Your task to perform on an android device: change notification settings in the gmail app Image 0: 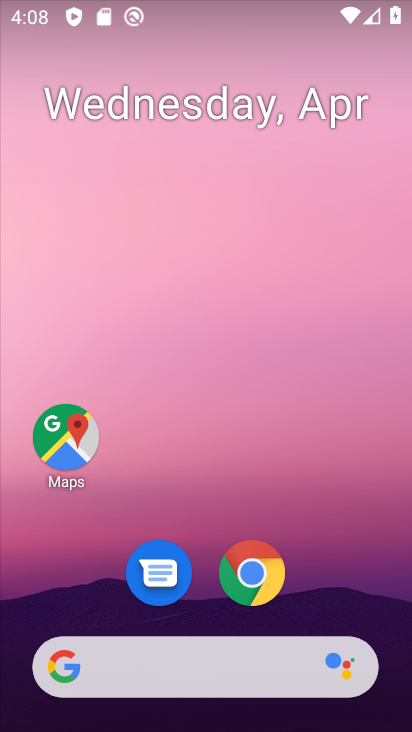
Step 0: drag from (346, 585) to (355, 84)
Your task to perform on an android device: change notification settings in the gmail app Image 1: 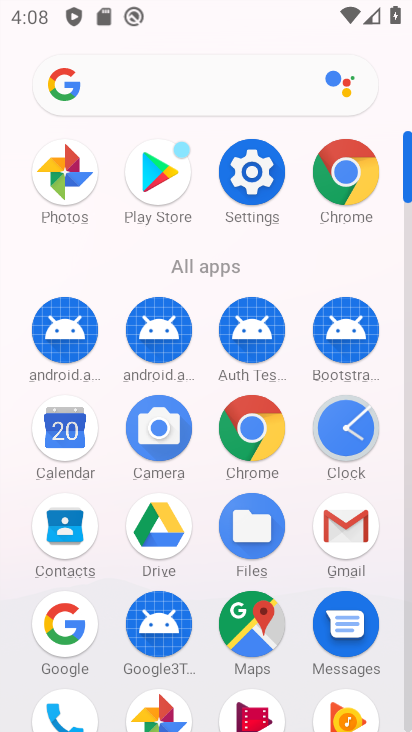
Step 1: click (357, 542)
Your task to perform on an android device: change notification settings in the gmail app Image 2: 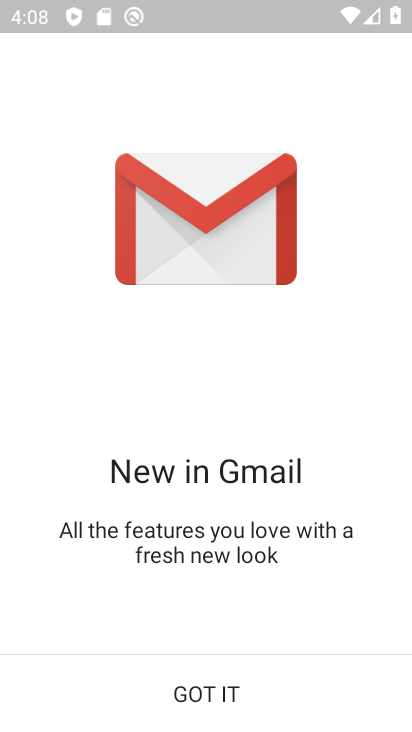
Step 2: click (200, 682)
Your task to perform on an android device: change notification settings in the gmail app Image 3: 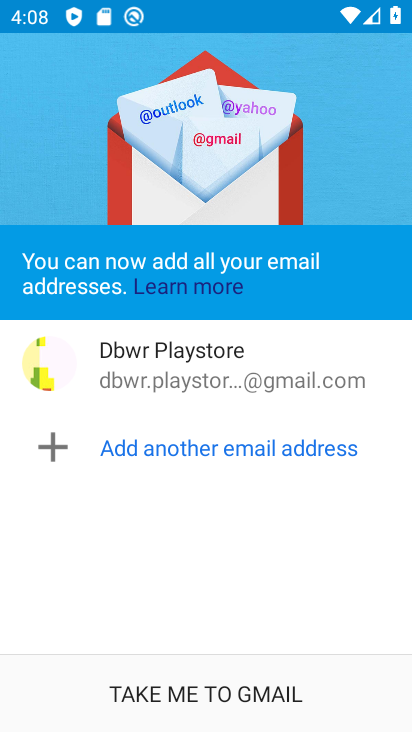
Step 3: click (200, 682)
Your task to perform on an android device: change notification settings in the gmail app Image 4: 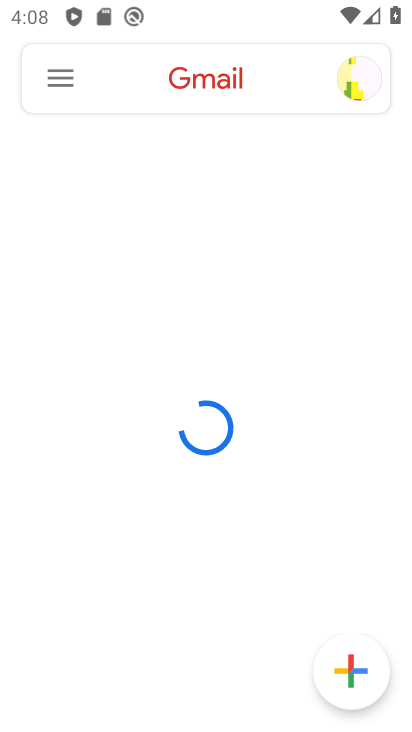
Step 4: click (46, 81)
Your task to perform on an android device: change notification settings in the gmail app Image 5: 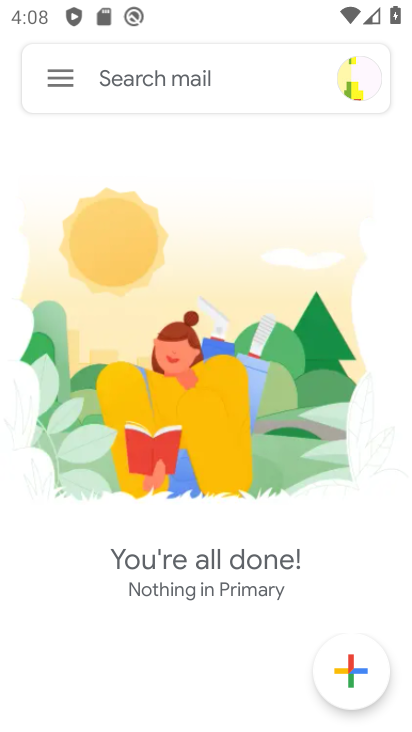
Step 5: click (67, 77)
Your task to perform on an android device: change notification settings in the gmail app Image 6: 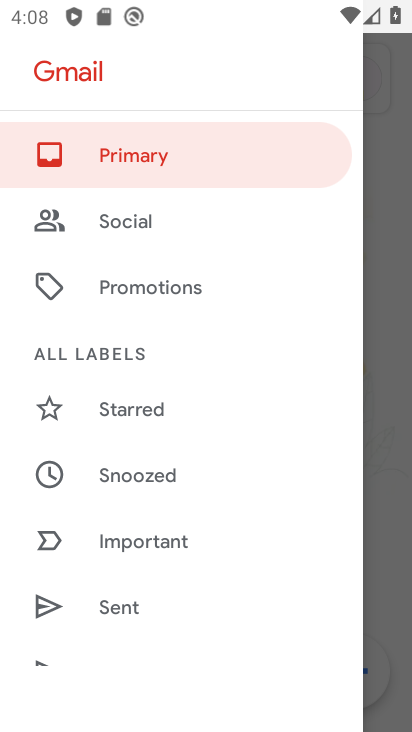
Step 6: drag from (234, 591) to (214, 180)
Your task to perform on an android device: change notification settings in the gmail app Image 7: 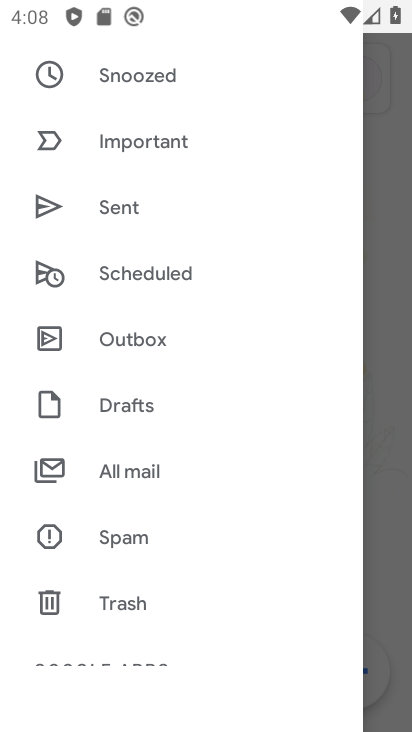
Step 7: drag from (191, 571) to (189, 163)
Your task to perform on an android device: change notification settings in the gmail app Image 8: 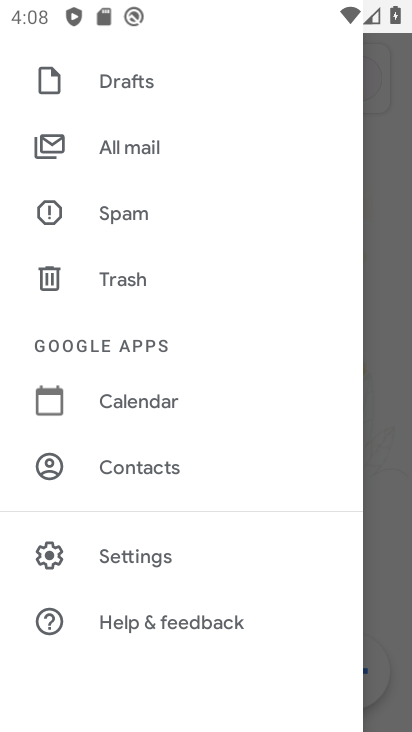
Step 8: click (114, 558)
Your task to perform on an android device: change notification settings in the gmail app Image 9: 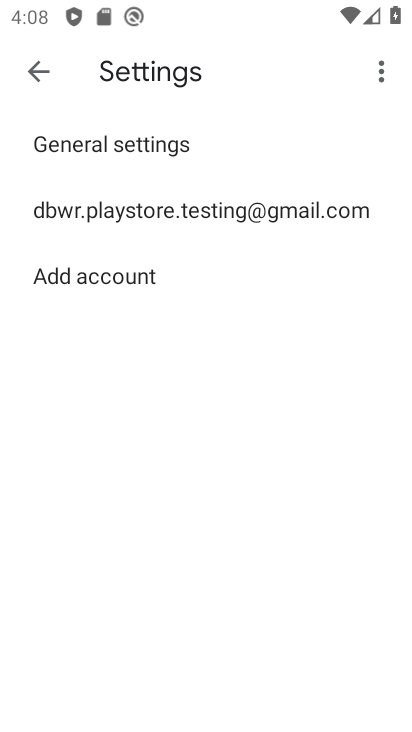
Step 9: click (80, 150)
Your task to perform on an android device: change notification settings in the gmail app Image 10: 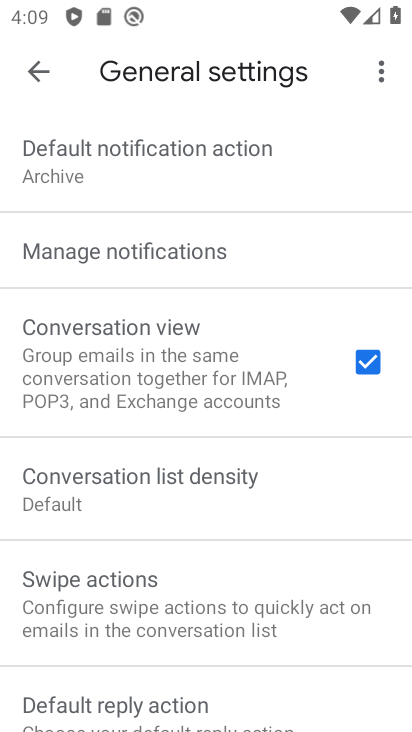
Step 10: click (109, 259)
Your task to perform on an android device: change notification settings in the gmail app Image 11: 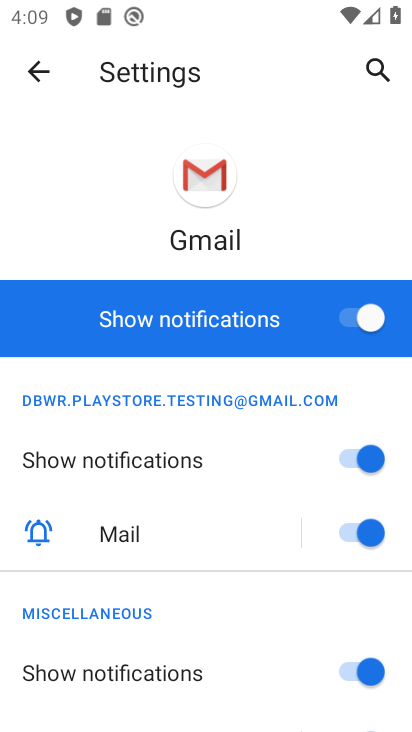
Step 11: click (356, 316)
Your task to perform on an android device: change notification settings in the gmail app Image 12: 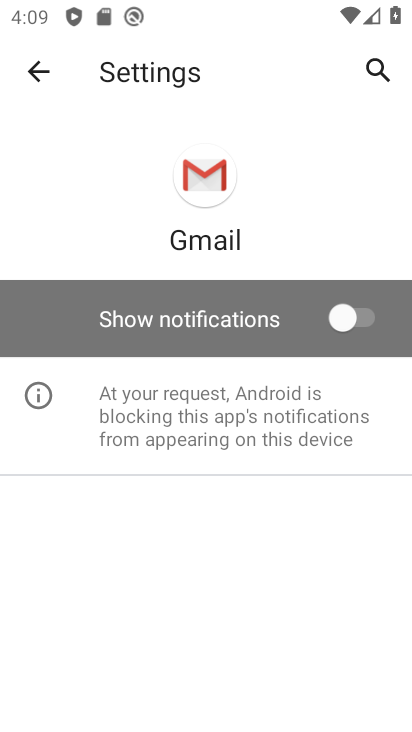
Step 12: task complete